Your task to perform on an android device: turn off location Image 0: 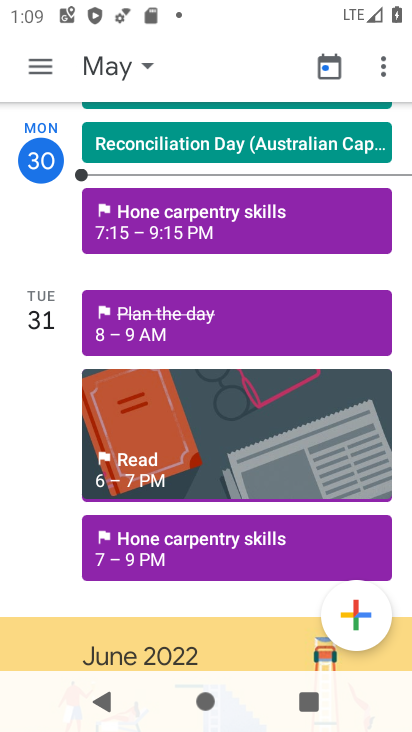
Step 0: press home button
Your task to perform on an android device: turn off location Image 1: 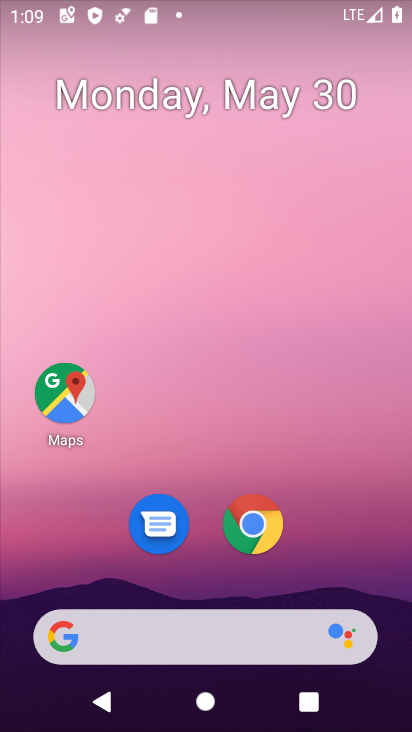
Step 1: drag from (205, 453) to (221, 15)
Your task to perform on an android device: turn off location Image 2: 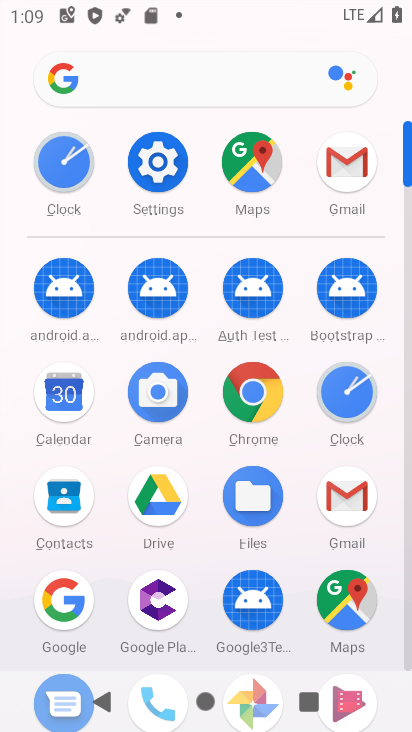
Step 2: click (158, 157)
Your task to perform on an android device: turn off location Image 3: 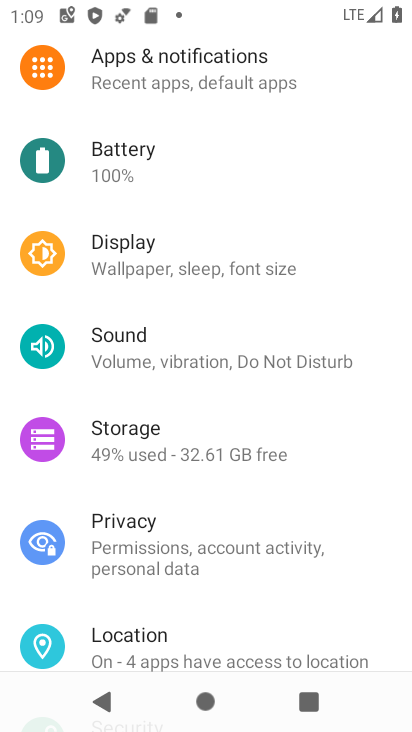
Step 3: drag from (196, 524) to (236, 290)
Your task to perform on an android device: turn off location Image 4: 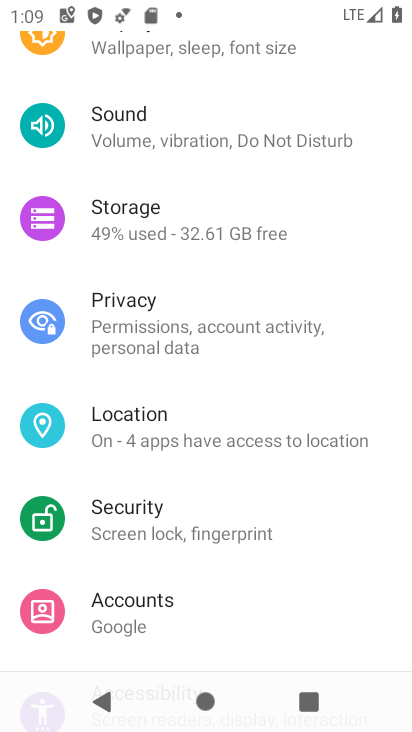
Step 4: click (236, 409)
Your task to perform on an android device: turn off location Image 5: 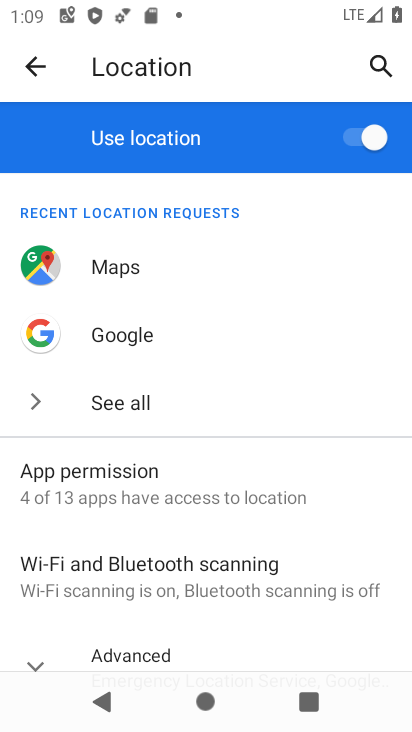
Step 5: click (359, 141)
Your task to perform on an android device: turn off location Image 6: 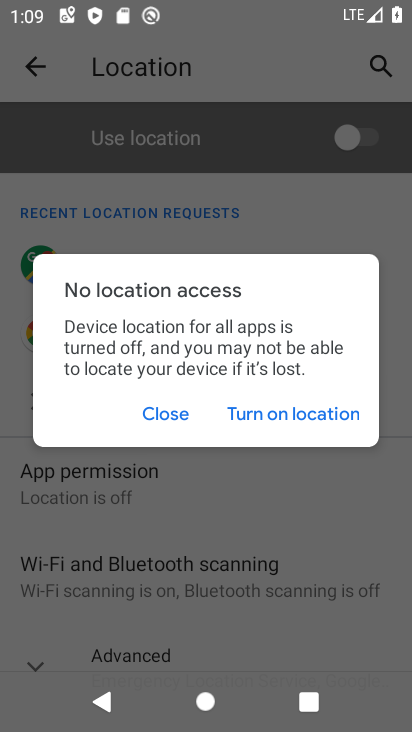
Step 6: task complete